Your task to perform on an android device: Go to ESPN.com Image 0: 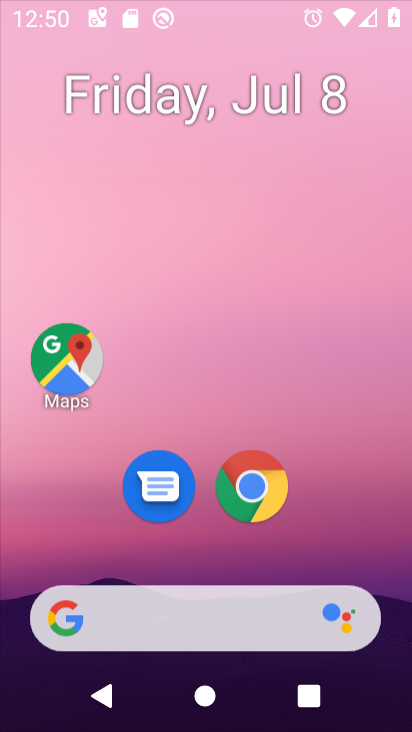
Step 0: drag from (359, 481) to (351, 174)
Your task to perform on an android device: Go to ESPN.com Image 1: 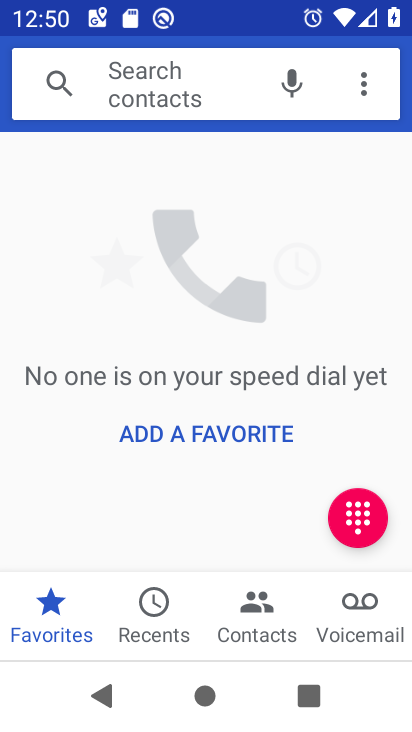
Step 1: press home button
Your task to perform on an android device: Go to ESPN.com Image 2: 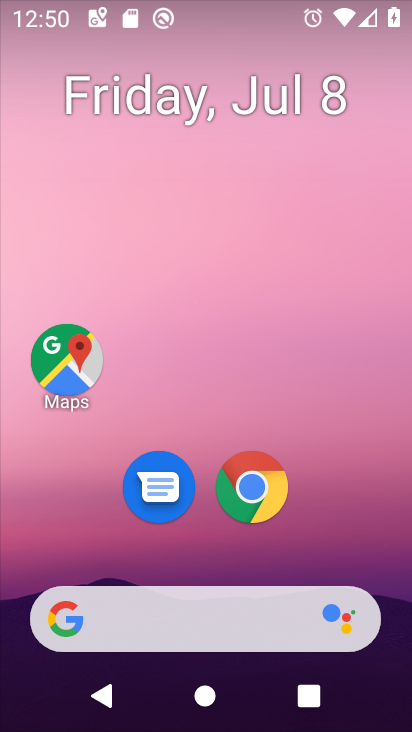
Step 2: drag from (373, 506) to (368, 140)
Your task to perform on an android device: Go to ESPN.com Image 3: 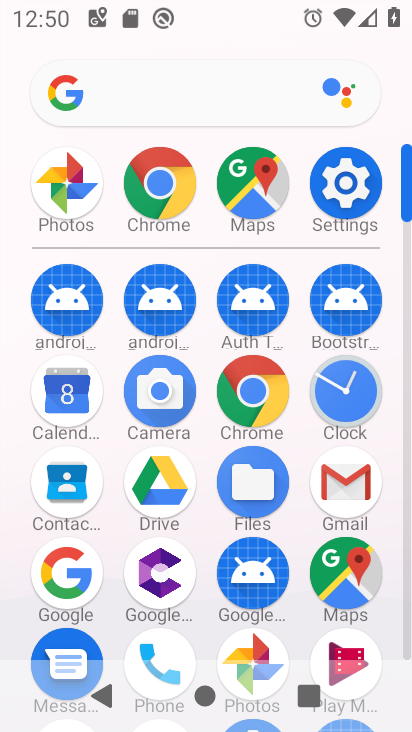
Step 3: click (265, 383)
Your task to perform on an android device: Go to ESPN.com Image 4: 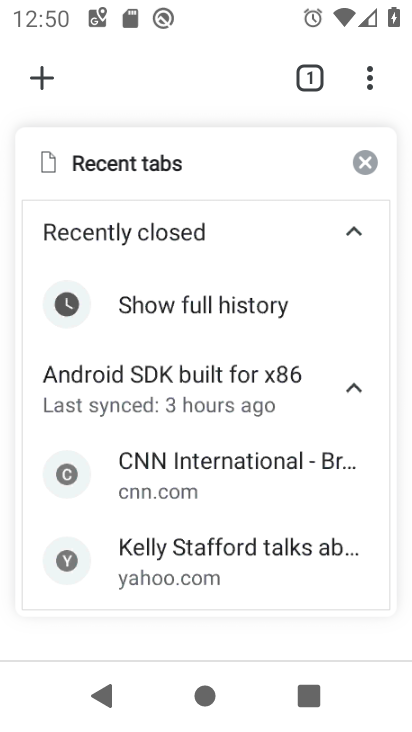
Step 4: press back button
Your task to perform on an android device: Go to ESPN.com Image 5: 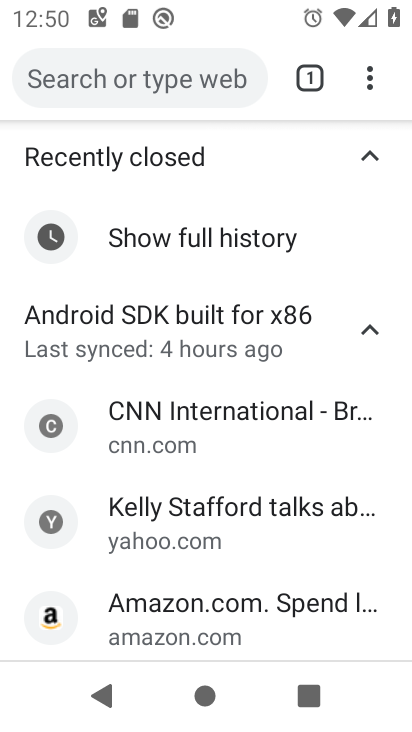
Step 5: click (181, 86)
Your task to perform on an android device: Go to ESPN.com Image 6: 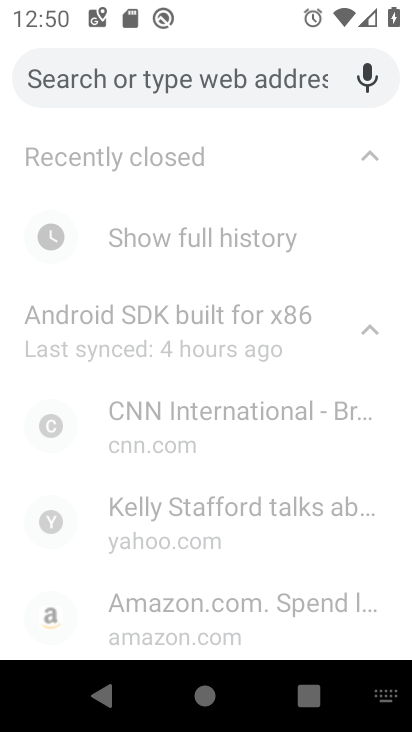
Step 6: type "espn.com"
Your task to perform on an android device: Go to ESPN.com Image 7: 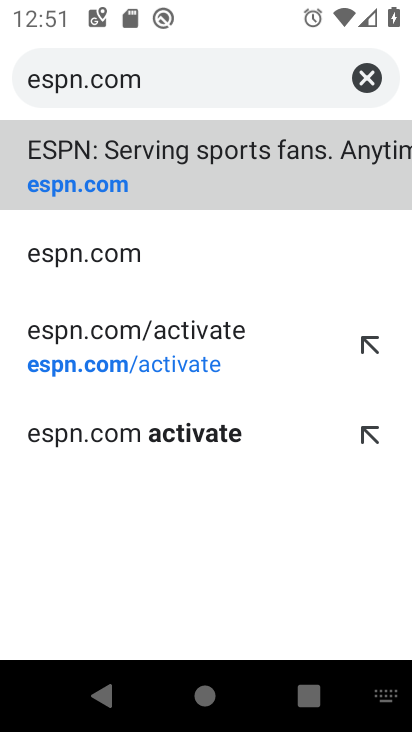
Step 7: click (220, 163)
Your task to perform on an android device: Go to ESPN.com Image 8: 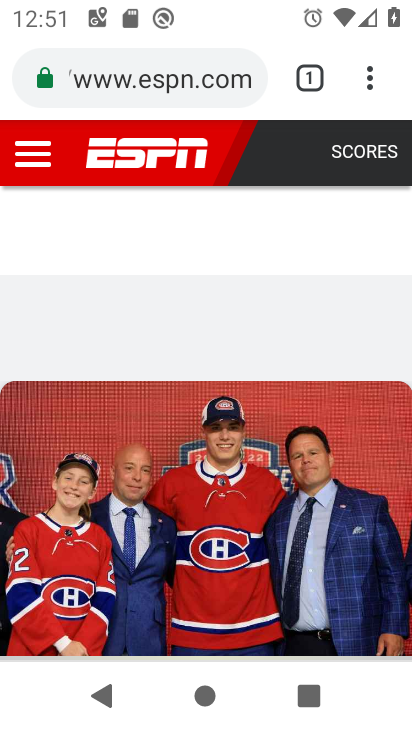
Step 8: task complete